Your task to perform on an android device: open chrome and create a bookmark for the current page Image 0: 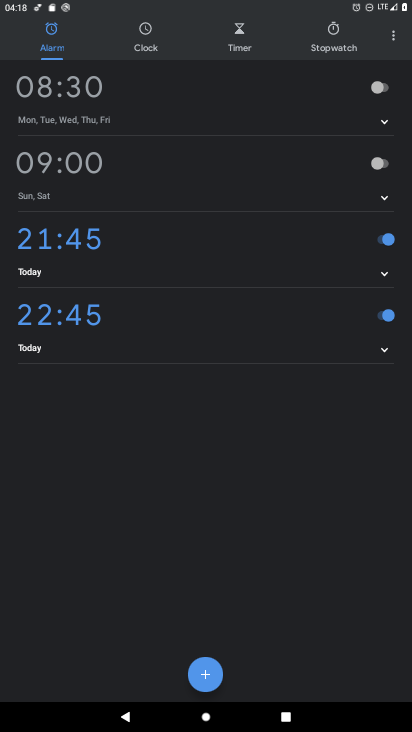
Step 0: press home button
Your task to perform on an android device: open chrome and create a bookmark for the current page Image 1: 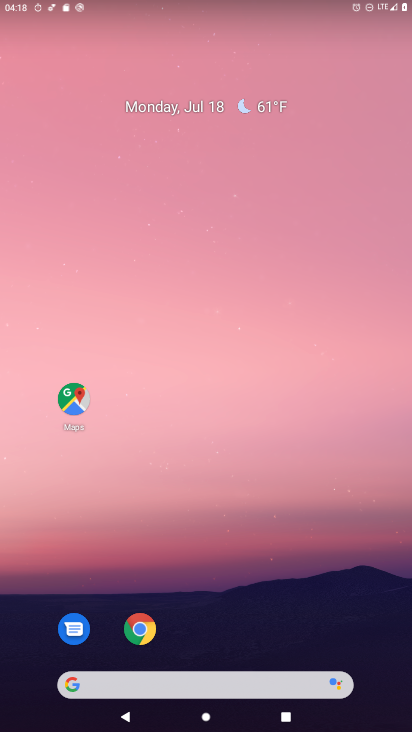
Step 1: click (144, 631)
Your task to perform on an android device: open chrome and create a bookmark for the current page Image 2: 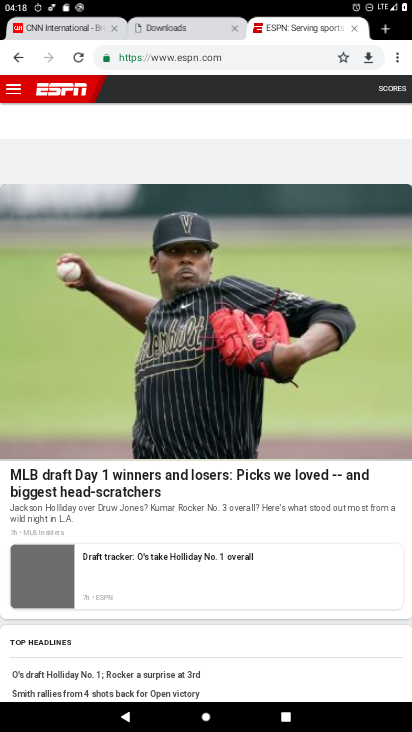
Step 2: click (341, 55)
Your task to perform on an android device: open chrome and create a bookmark for the current page Image 3: 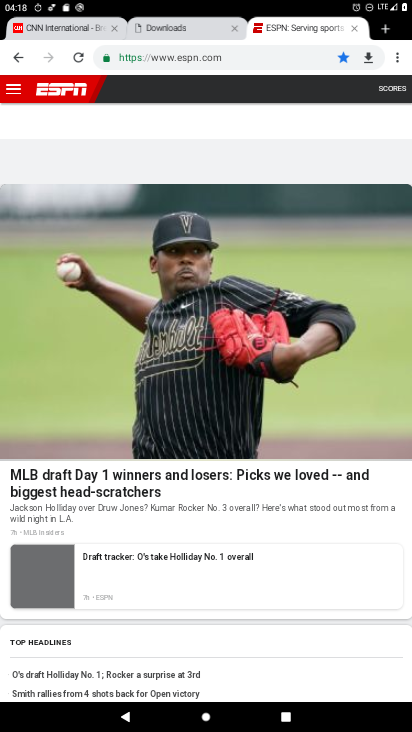
Step 3: task complete